Your task to perform on an android device: turn off improve location accuracy Image 0: 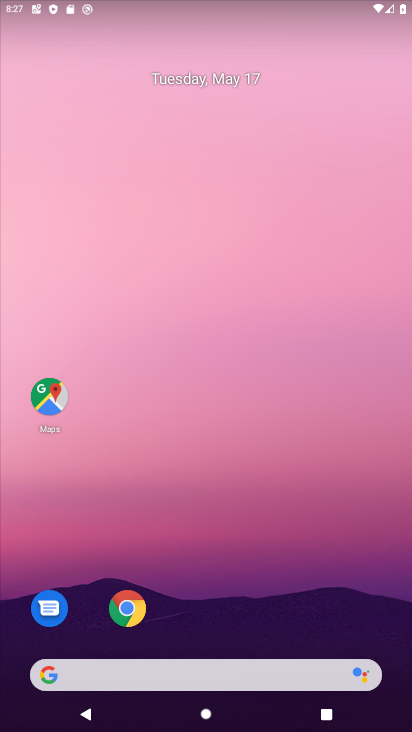
Step 0: drag from (222, 629) to (345, 62)
Your task to perform on an android device: turn off improve location accuracy Image 1: 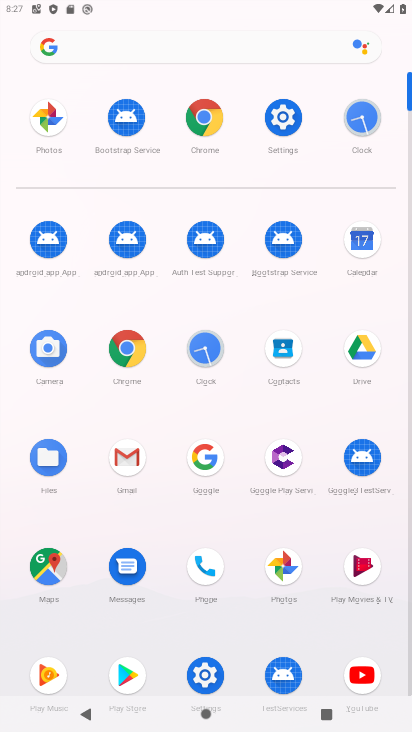
Step 1: click (277, 110)
Your task to perform on an android device: turn off improve location accuracy Image 2: 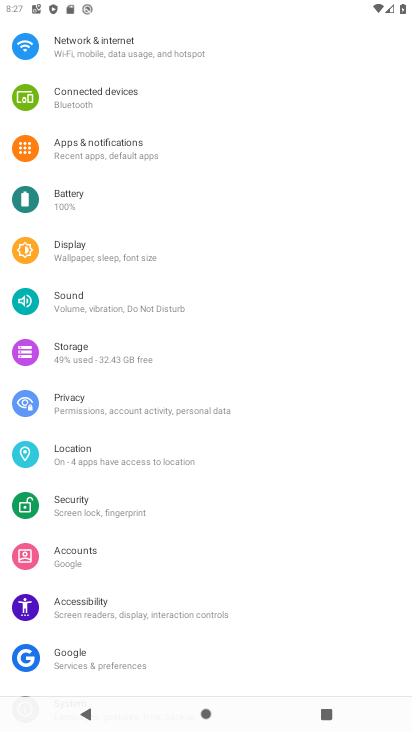
Step 2: click (91, 446)
Your task to perform on an android device: turn off improve location accuracy Image 3: 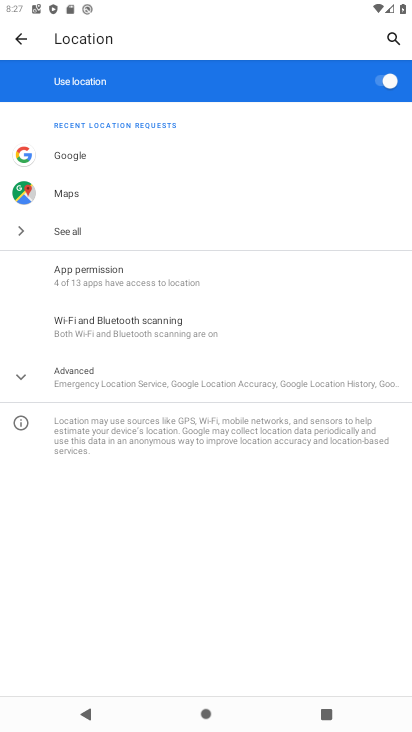
Step 3: click (123, 383)
Your task to perform on an android device: turn off improve location accuracy Image 4: 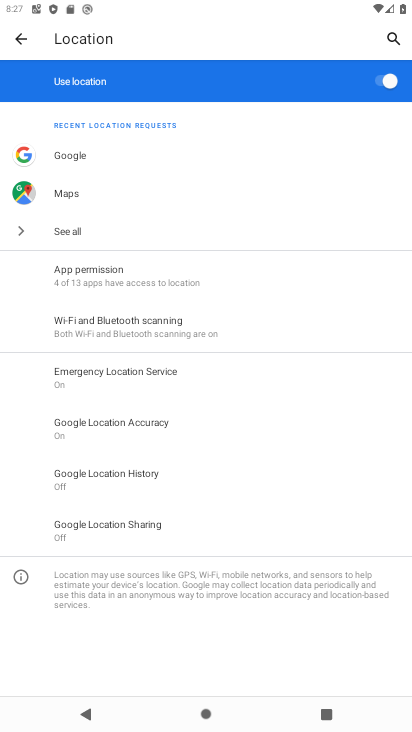
Step 4: click (113, 444)
Your task to perform on an android device: turn off improve location accuracy Image 5: 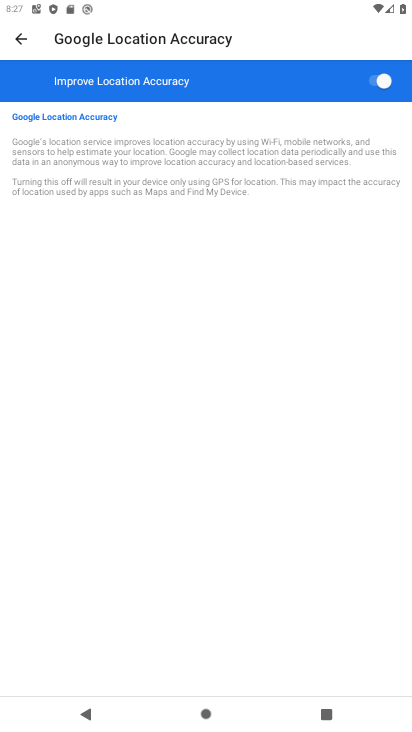
Step 5: click (371, 78)
Your task to perform on an android device: turn off improve location accuracy Image 6: 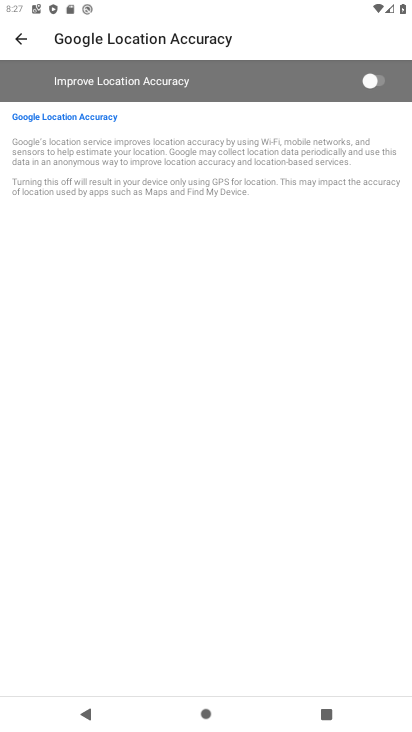
Step 6: task complete